Your task to perform on an android device: check data usage Image 0: 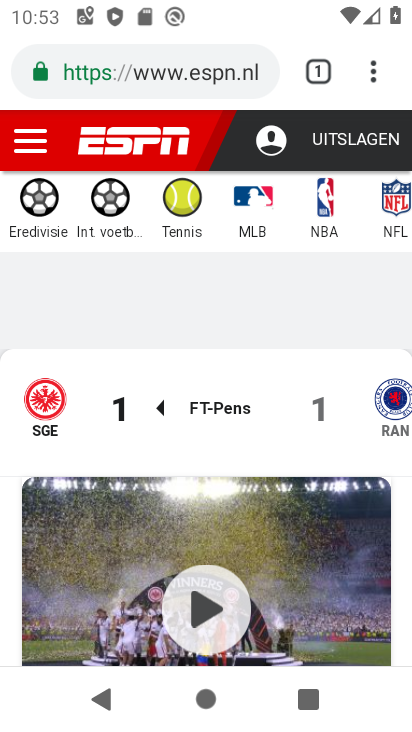
Step 0: drag from (204, 570) to (265, 62)
Your task to perform on an android device: check data usage Image 1: 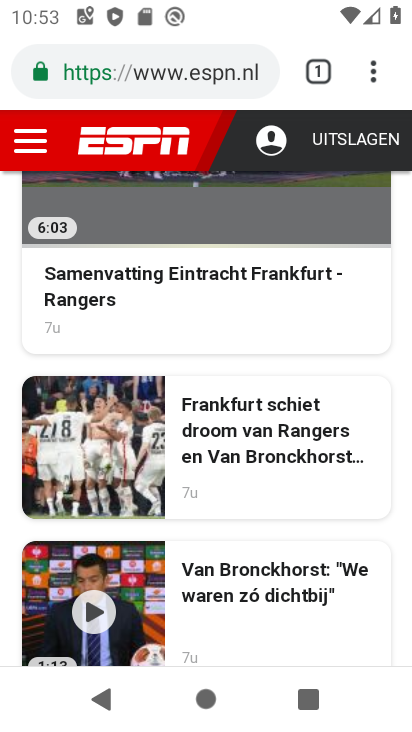
Step 1: press home button
Your task to perform on an android device: check data usage Image 2: 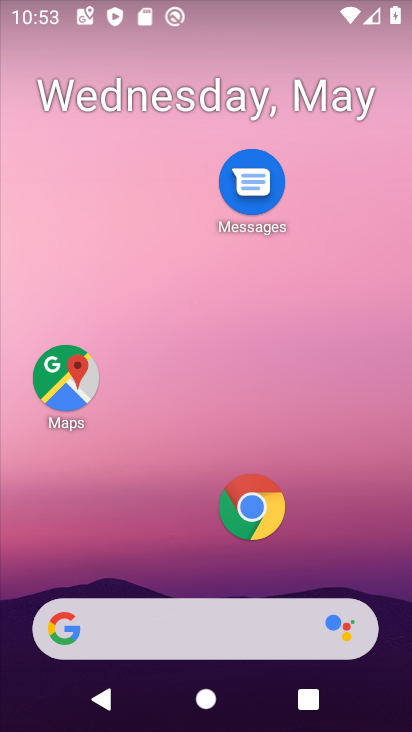
Step 2: drag from (200, 580) to (232, 4)
Your task to perform on an android device: check data usage Image 3: 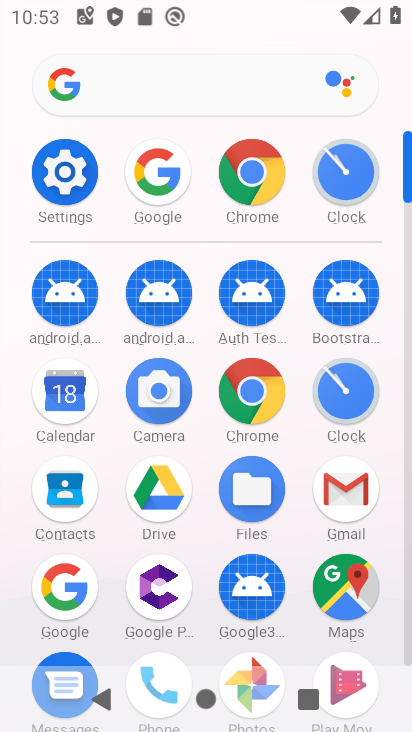
Step 3: click (65, 165)
Your task to perform on an android device: check data usage Image 4: 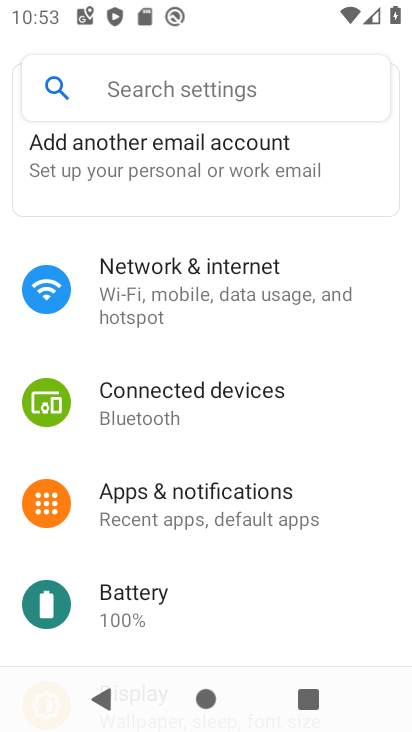
Step 4: click (186, 299)
Your task to perform on an android device: check data usage Image 5: 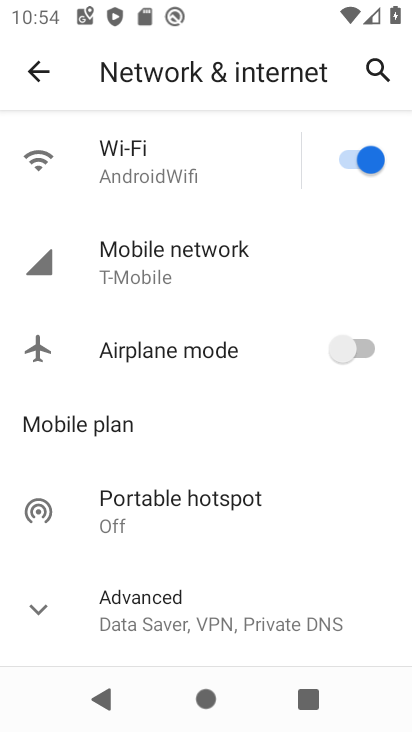
Step 5: click (182, 263)
Your task to perform on an android device: check data usage Image 6: 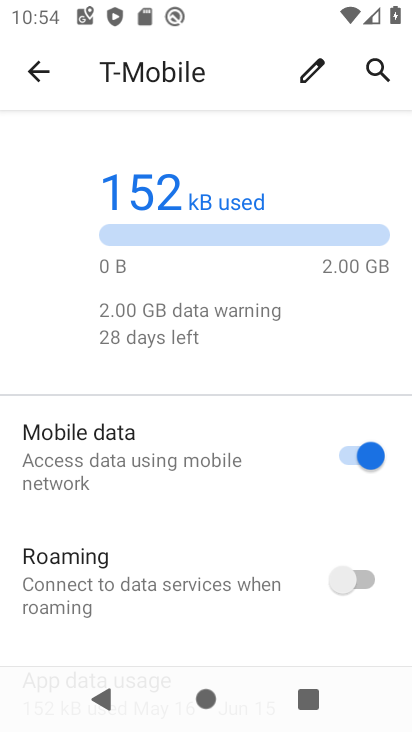
Step 6: drag from (196, 627) to (195, 496)
Your task to perform on an android device: check data usage Image 7: 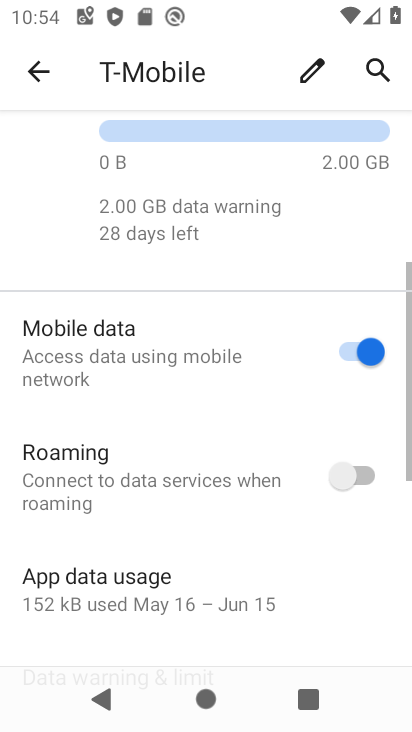
Step 7: drag from (203, 409) to (210, 360)
Your task to perform on an android device: check data usage Image 8: 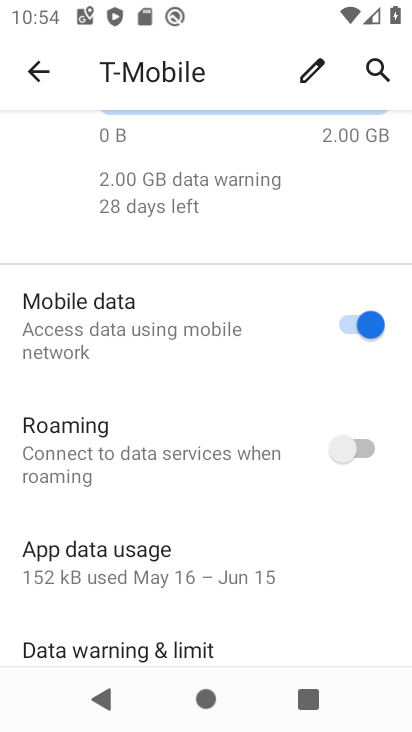
Step 8: click (191, 544)
Your task to perform on an android device: check data usage Image 9: 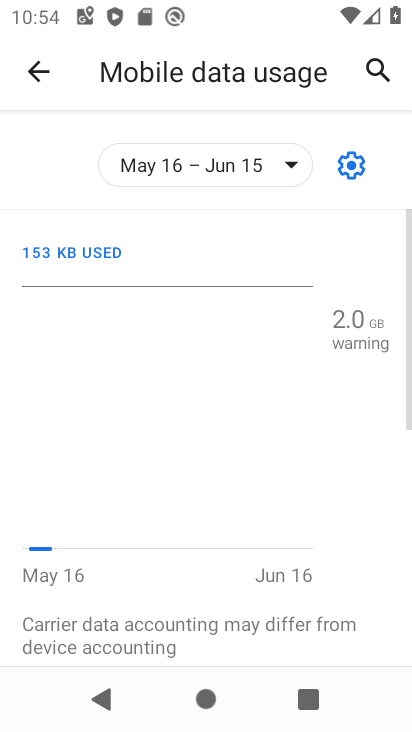
Step 9: task complete